Your task to perform on an android device: turn off data saver in the chrome app Image 0: 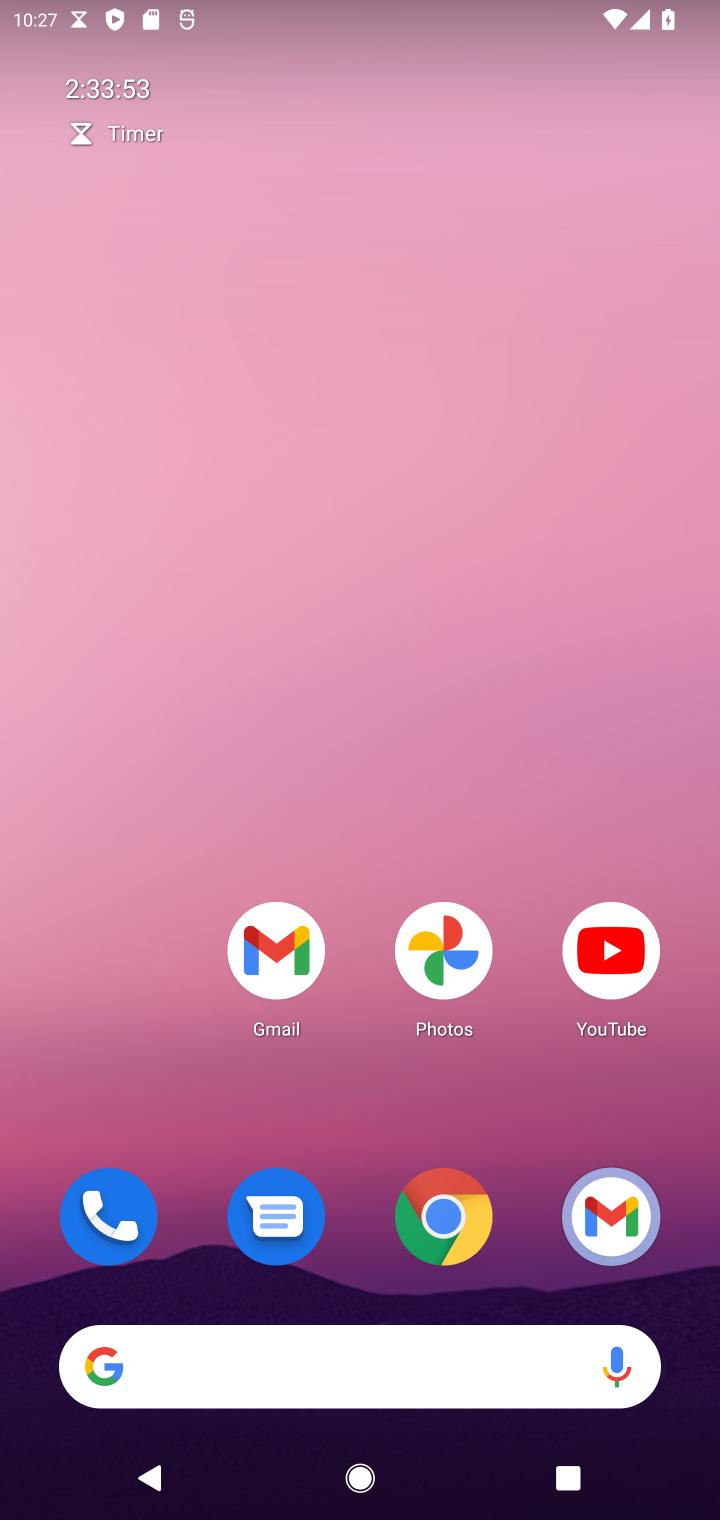
Step 0: click (441, 1217)
Your task to perform on an android device: turn off data saver in the chrome app Image 1: 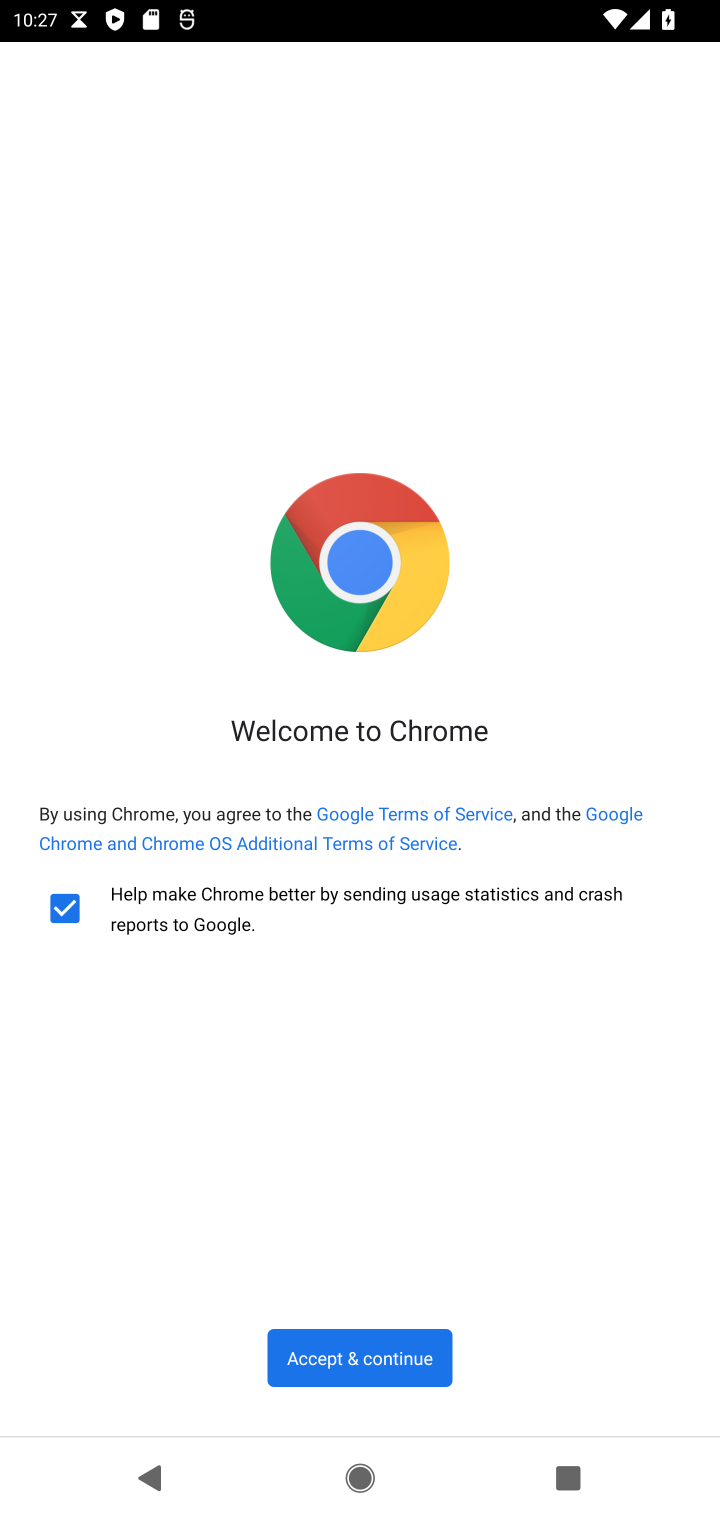
Step 1: click (341, 1350)
Your task to perform on an android device: turn off data saver in the chrome app Image 2: 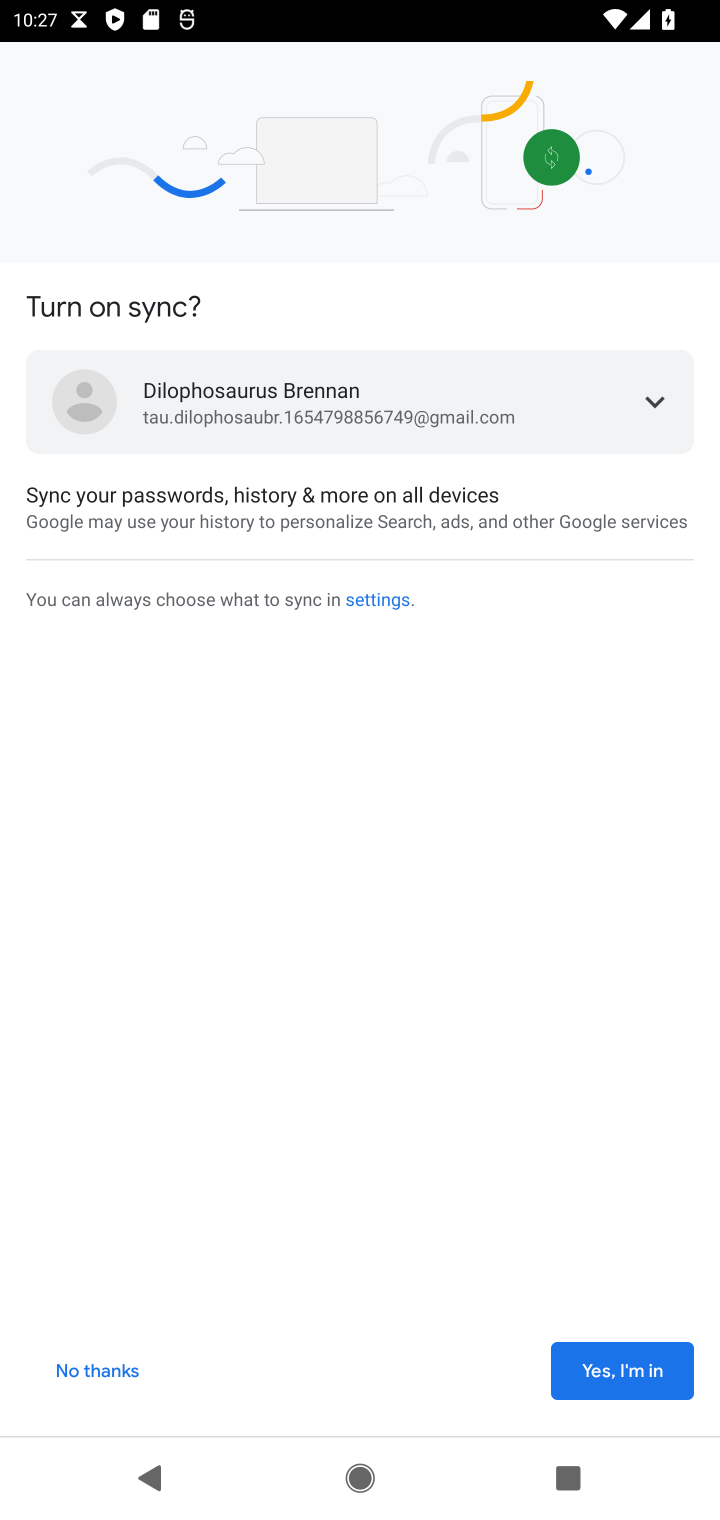
Step 2: click (626, 1366)
Your task to perform on an android device: turn off data saver in the chrome app Image 3: 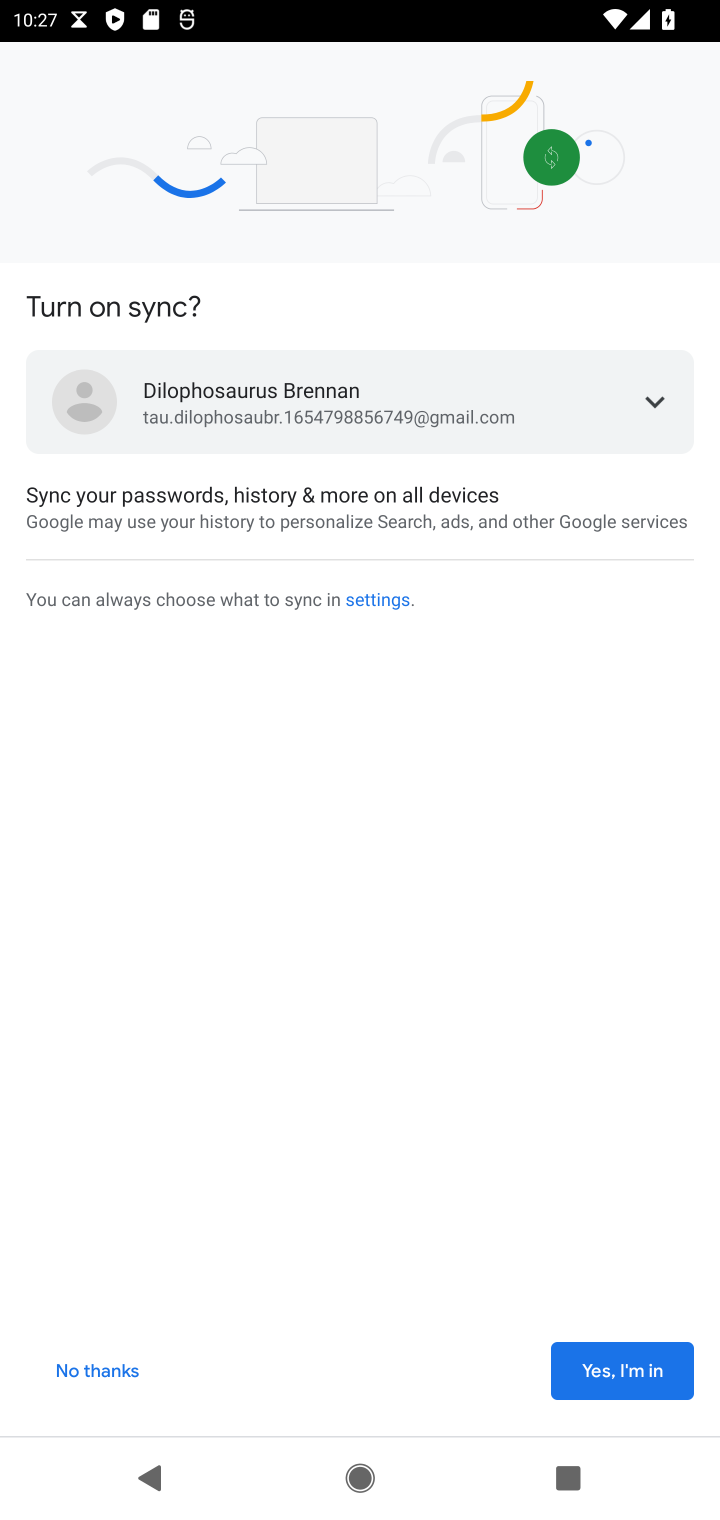
Step 3: click (621, 1377)
Your task to perform on an android device: turn off data saver in the chrome app Image 4: 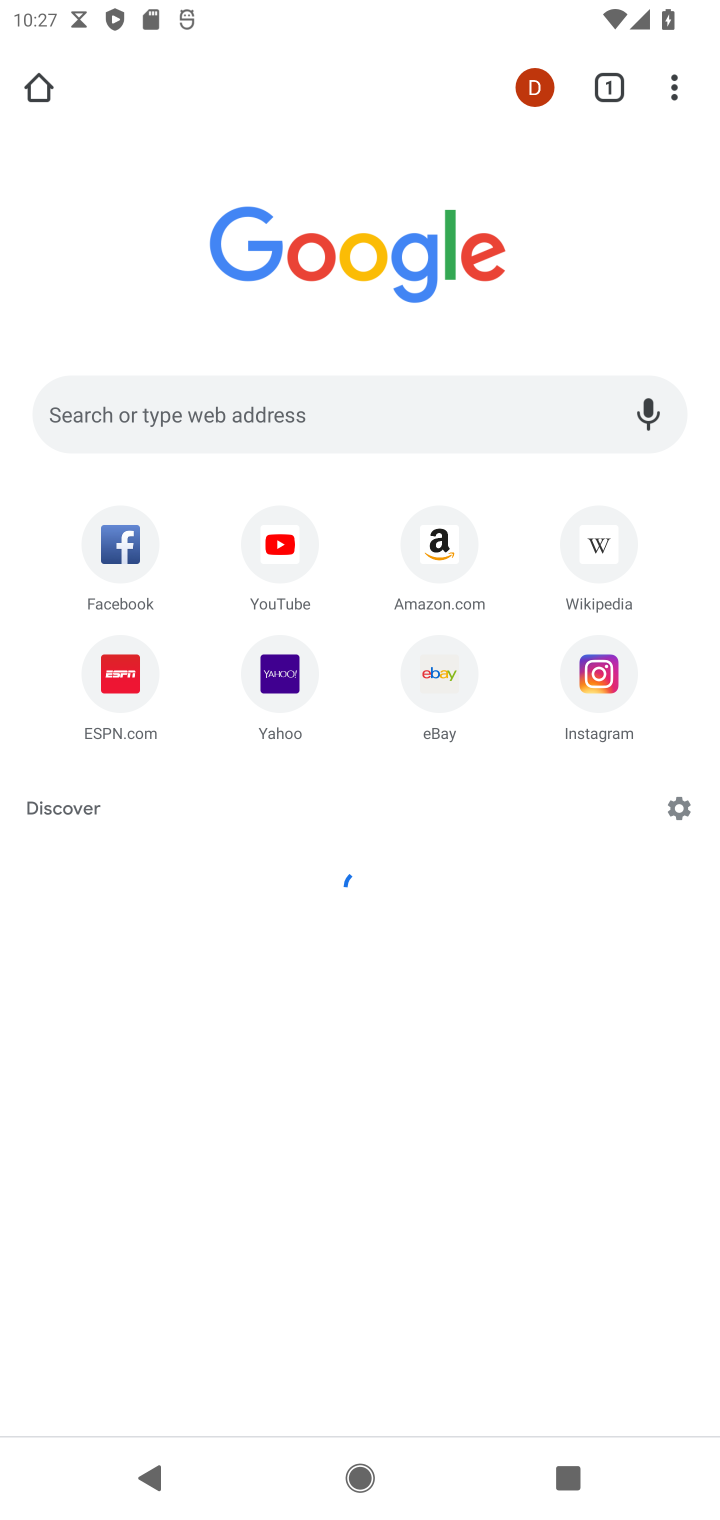
Step 4: drag from (677, 94) to (403, 755)
Your task to perform on an android device: turn off data saver in the chrome app Image 5: 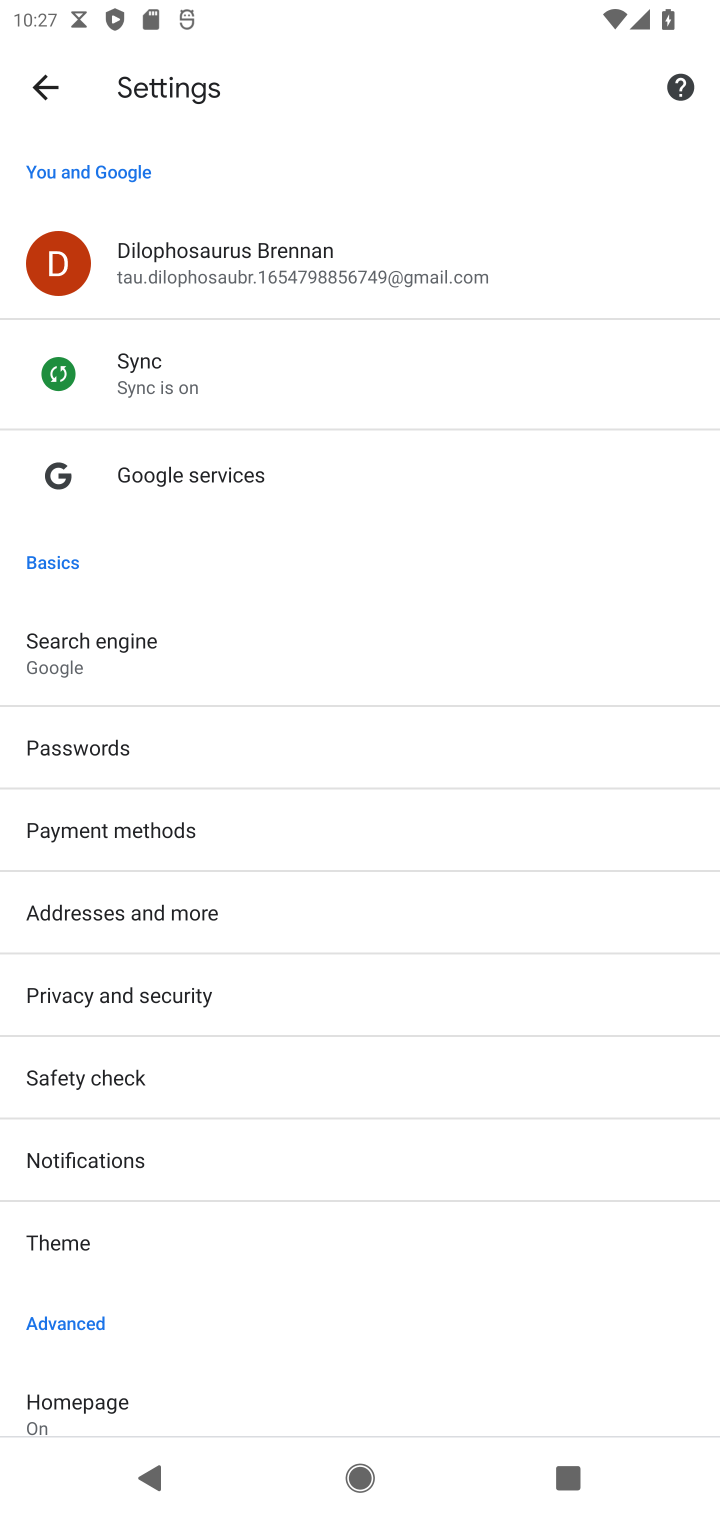
Step 5: drag from (201, 1284) to (402, 499)
Your task to perform on an android device: turn off data saver in the chrome app Image 6: 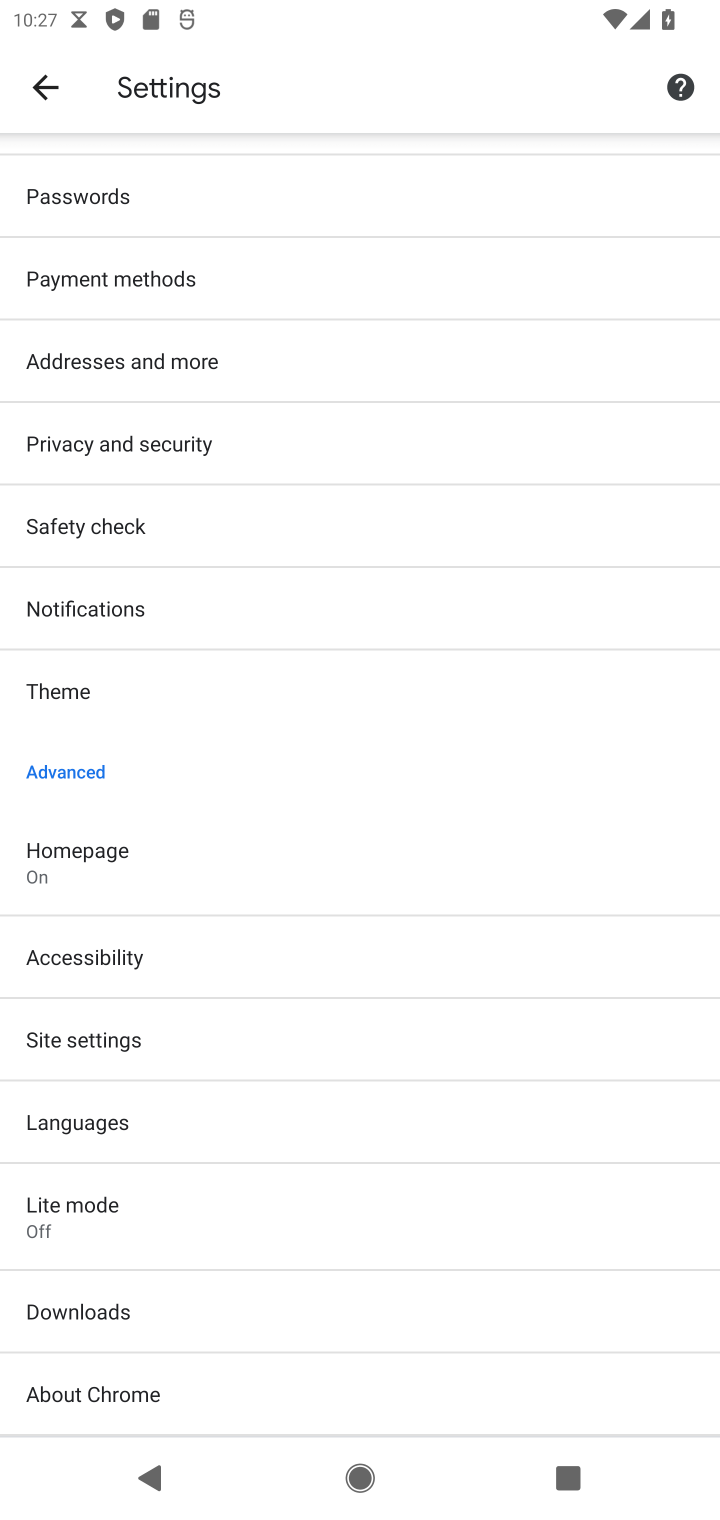
Step 6: click (83, 1226)
Your task to perform on an android device: turn off data saver in the chrome app Image 7: 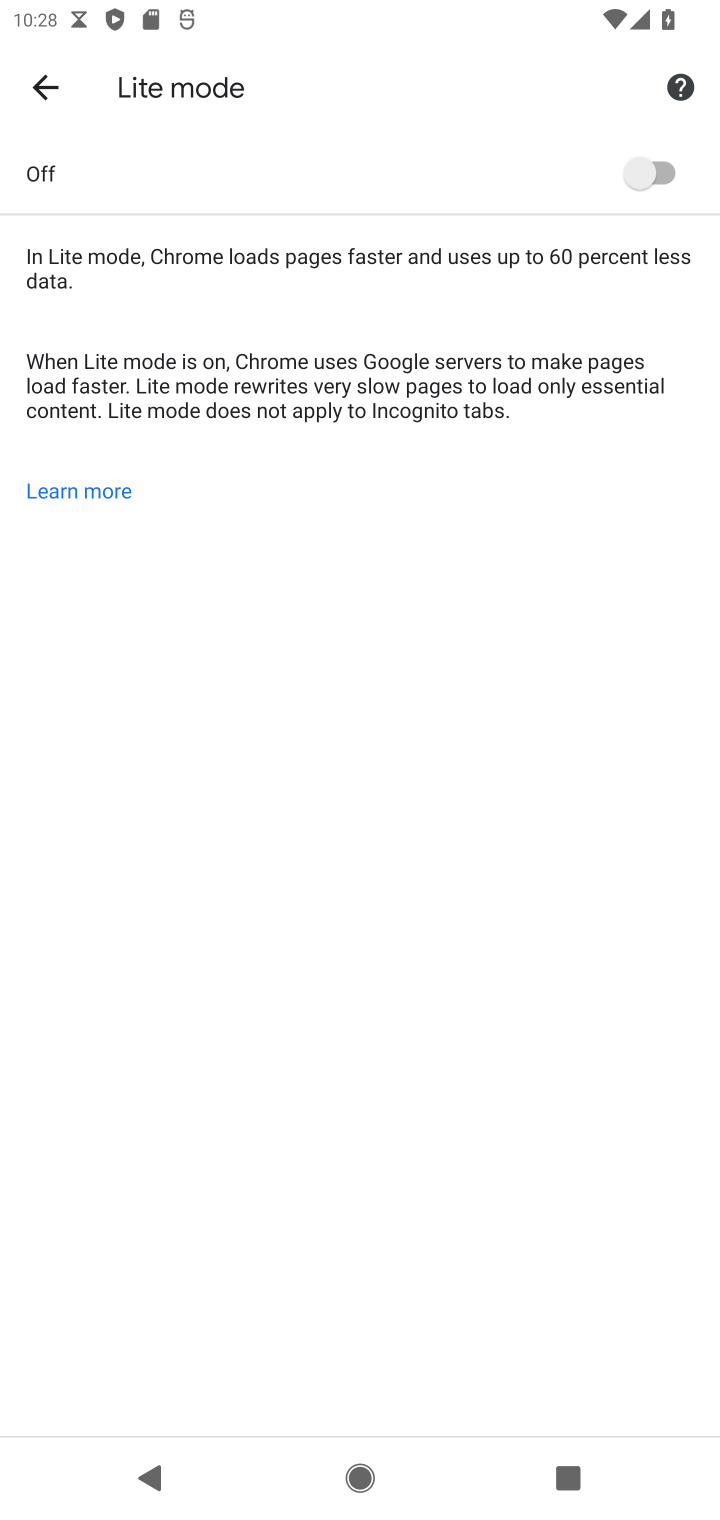
Step 7: task complete